Your task to perform on an android device: change text size in settings app Image 0: 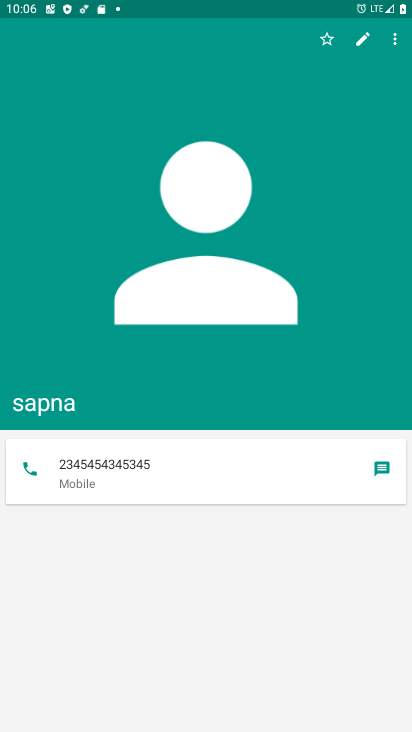
Step 0: press home button
Your task to perform on an android device: change text size in settings app Image 1: 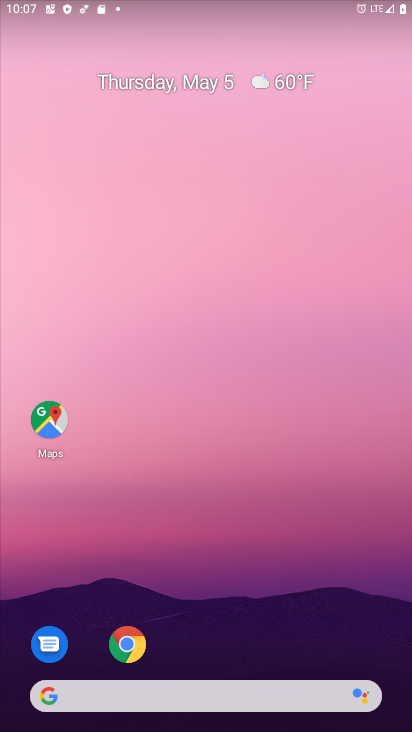
Step 1: drag from (180, 638) to (239, 67)
Your task to perform on an android device: change text size in settings app Image 2: 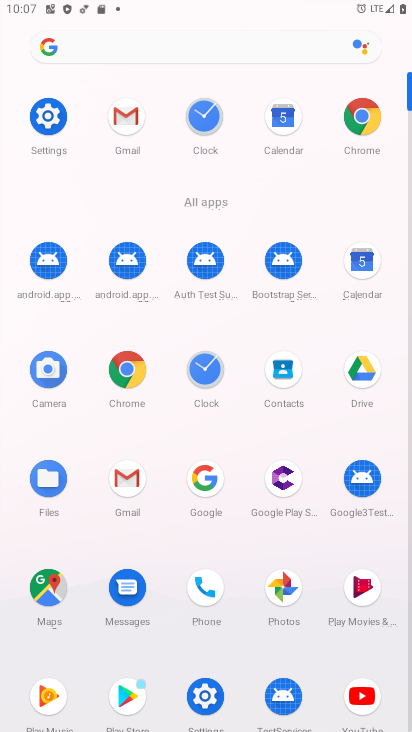
Step 2: click (44, 122)
Your task to perform on an android device: change text size in settings app Image 3: 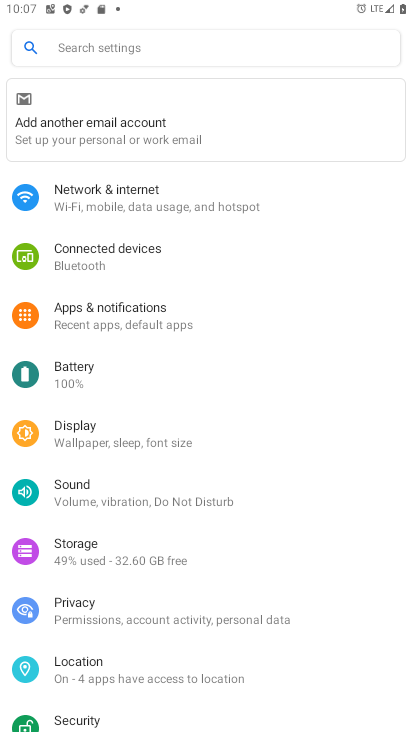
Step 3: click (162, 438)
Your task to perform on an android device: change text size in settings app Image 4: 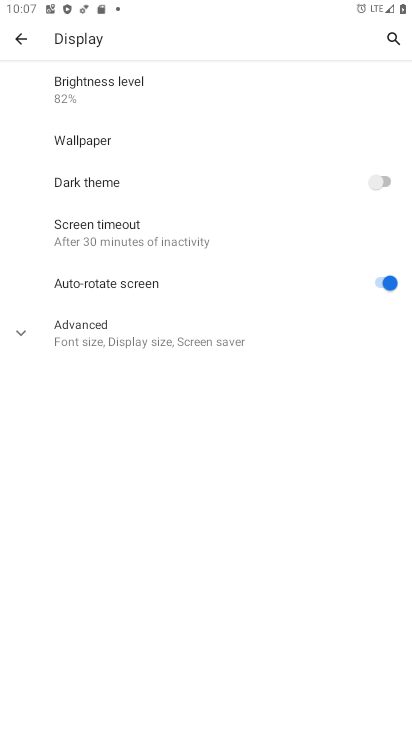
Step 4: click (16, 335)
Your task to perform on an android device: change text size in settings app Image 5: 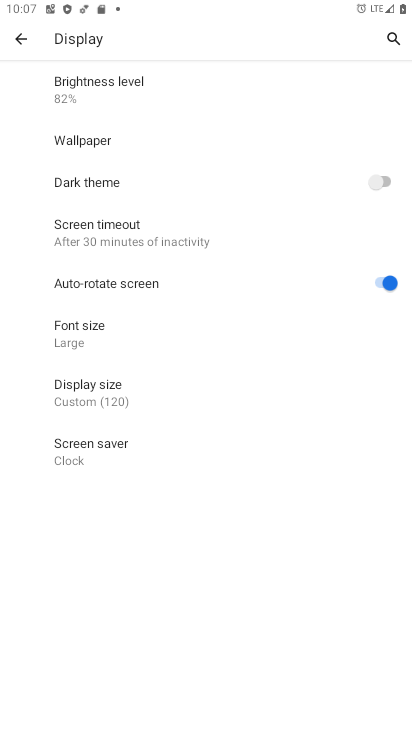
Step 5: click (128, 340)
Your task to perform on an android device: change text size in settings app Image 6: 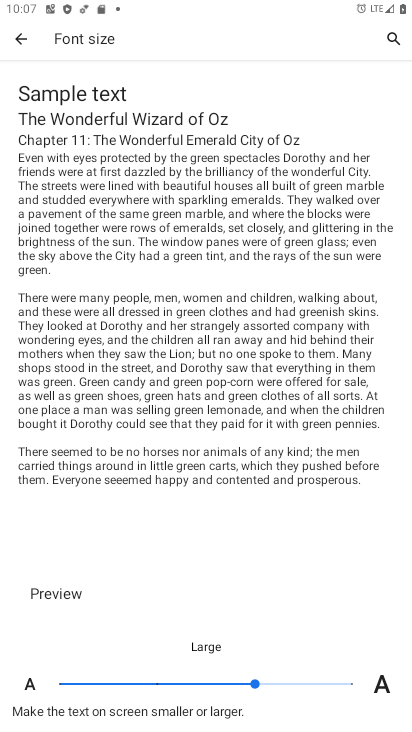
Step 6: click (201, 683)
Your task to perform on an android device: change text size in settings app Image 7: 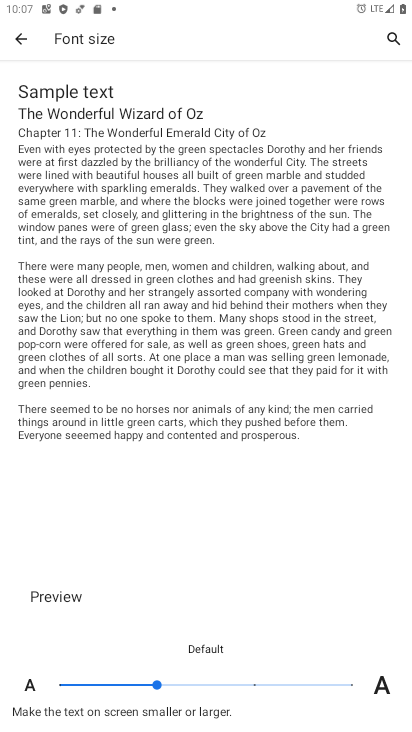
Step 7: task complete